Your task to perform on an android device: change notification settings in the gmail app Image 0: 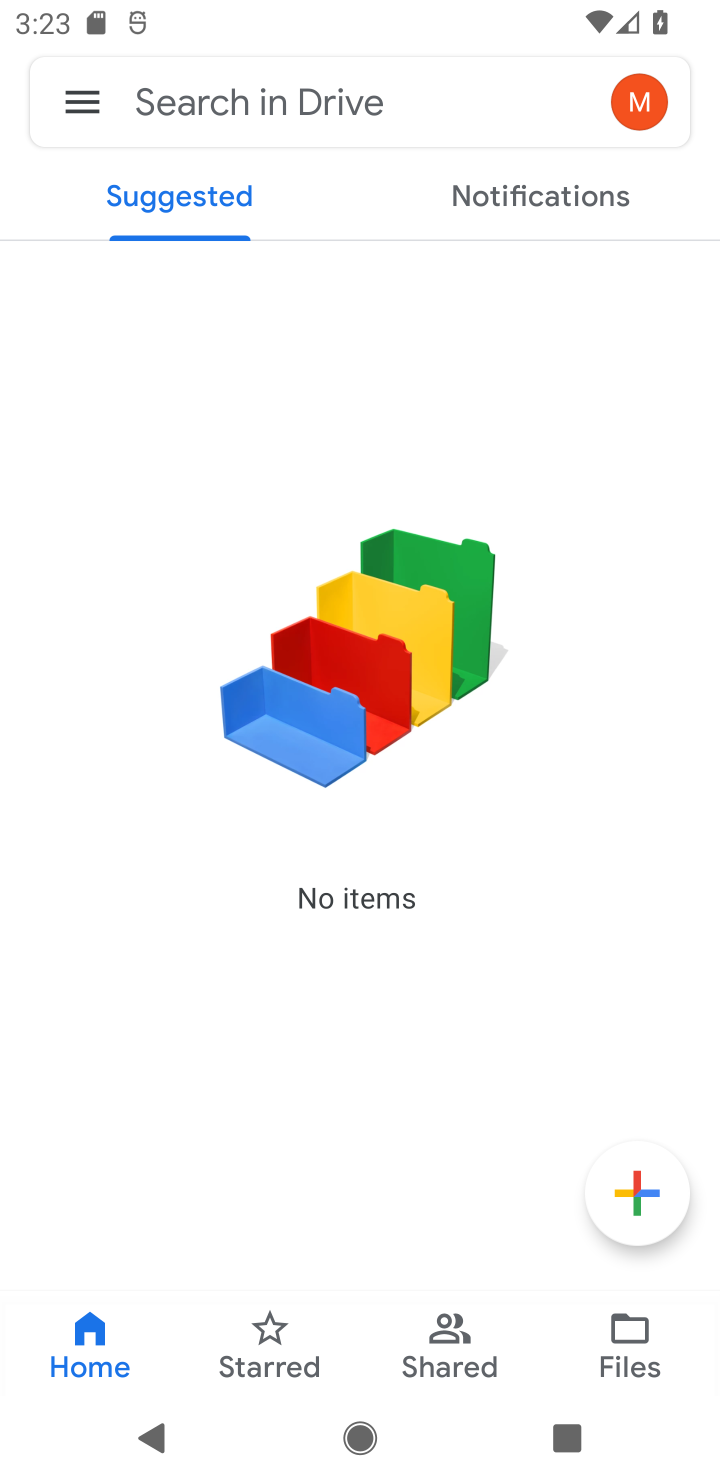
Step 0: press back button
Your task to perform on an android device: change notification settings in the gmail app Image 1: 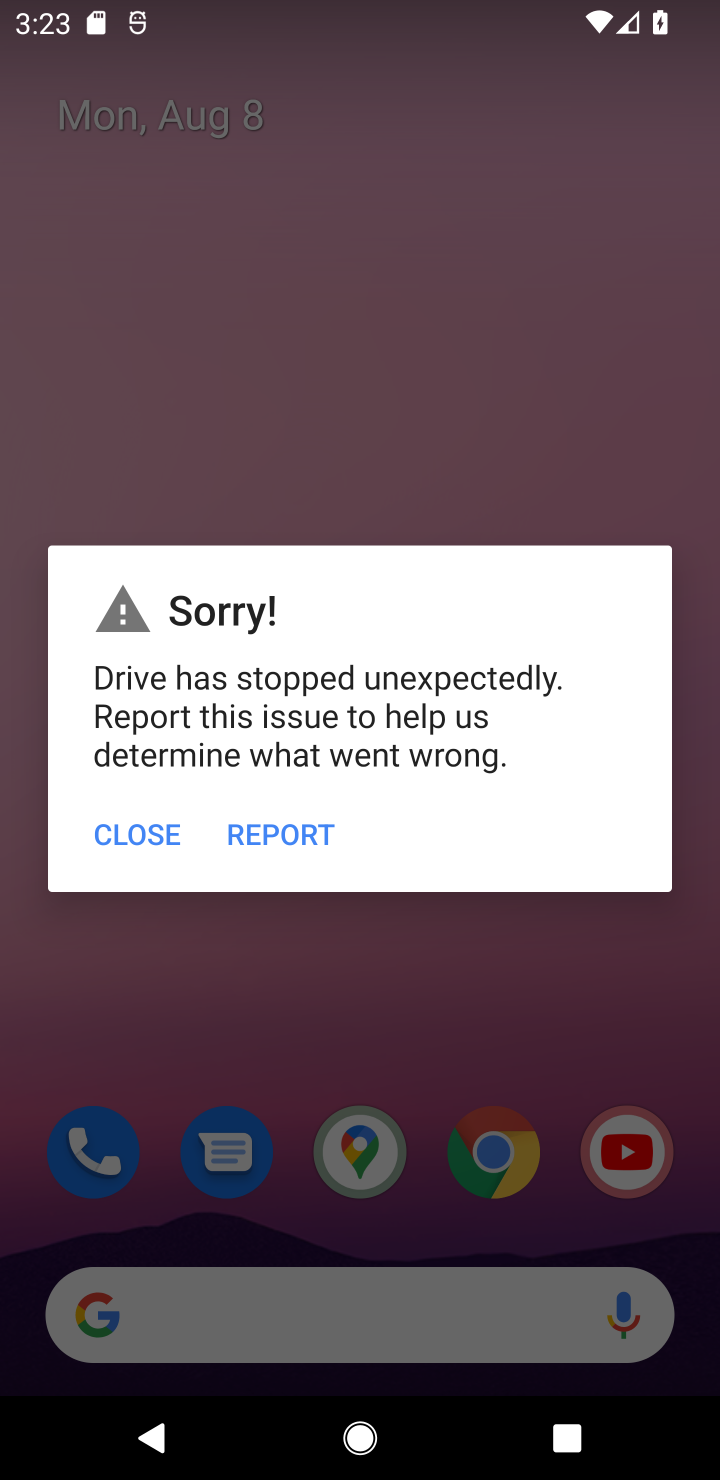
Step 1: click (151, 824)
Your task to perform on an android device: change notification settings in the gmail app Image 2: 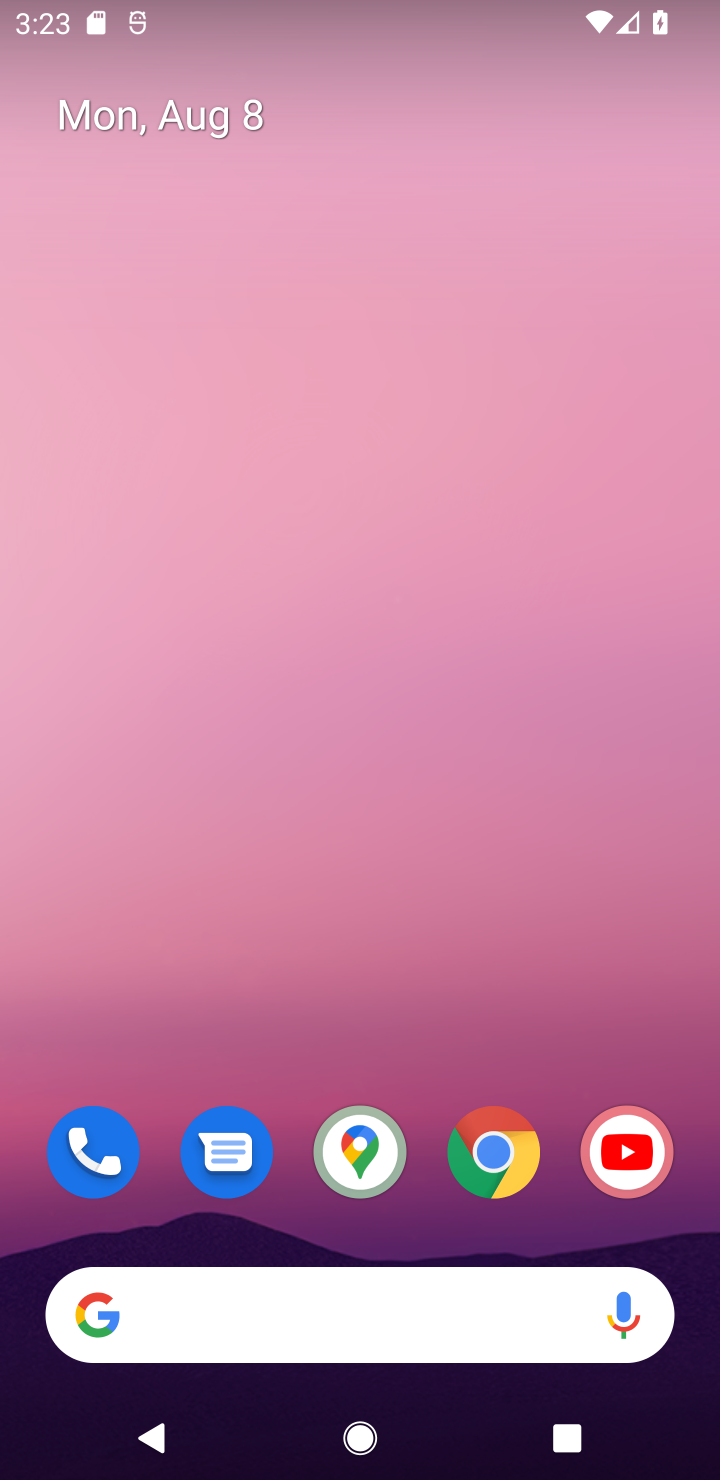
Step 2: drag from (385, 1268) to (592, 105)
Your task to perform on an android device: change notification settings in the gmail app Image 3: 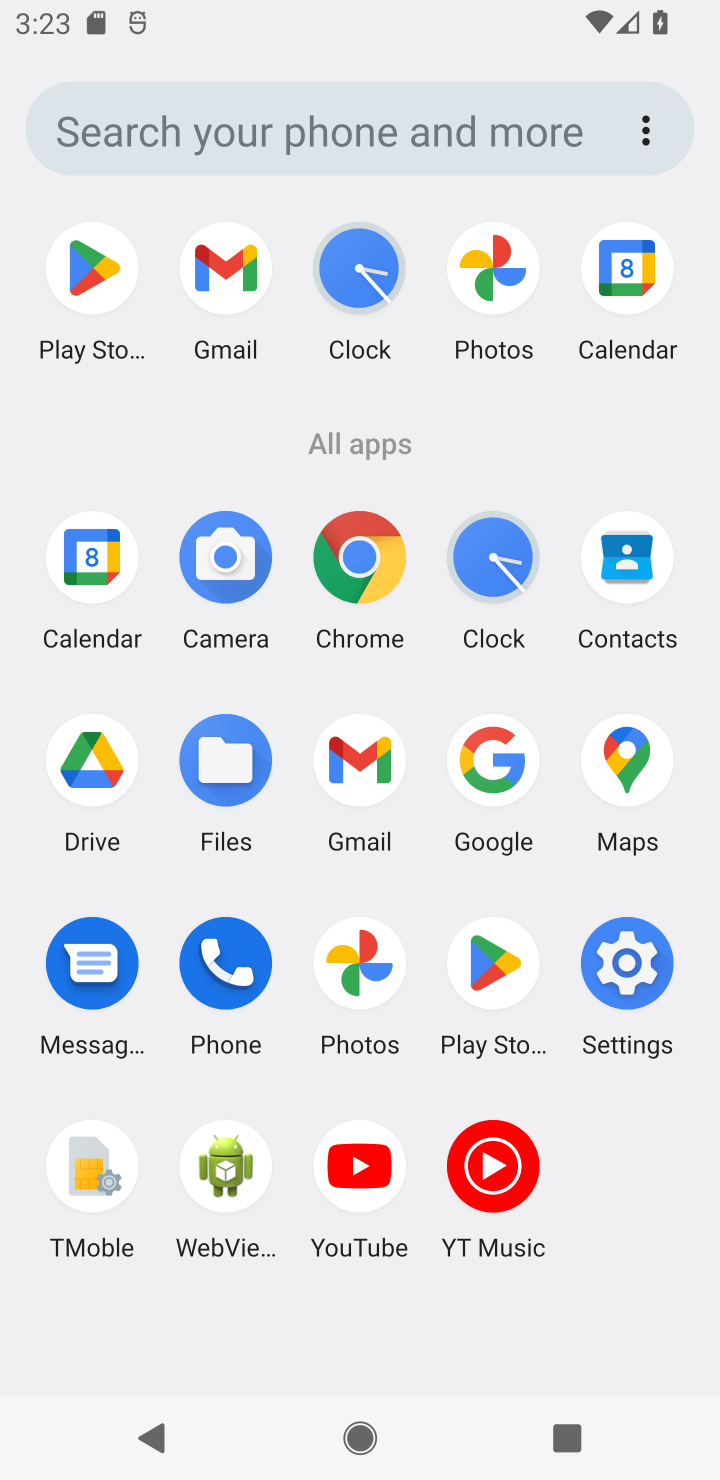
Step 3: click (228, 279)
Your task to perform on an android device: change notification settings in the gmail app Image 4: 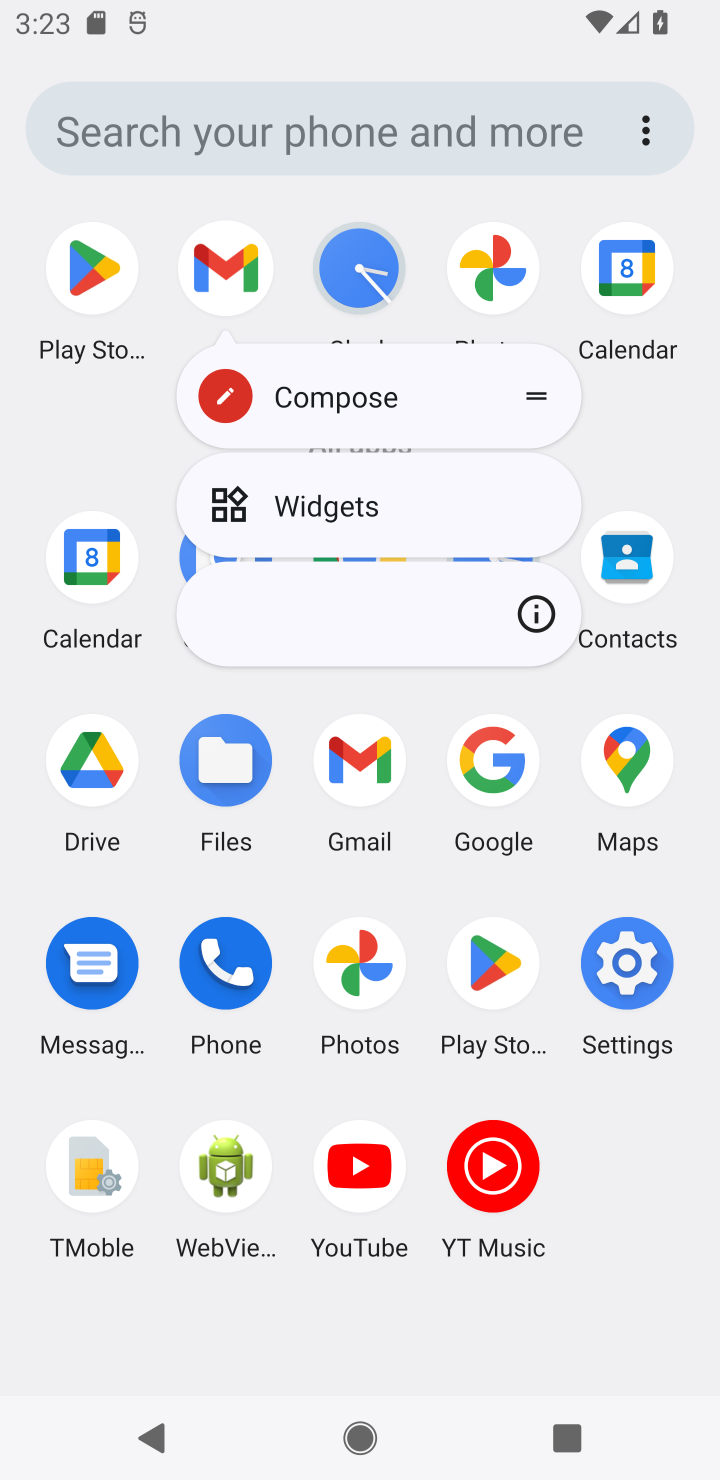
Step 4: click (560, 605)
Your task to perform on an android device: change notification settings in the gmail app Image 5: 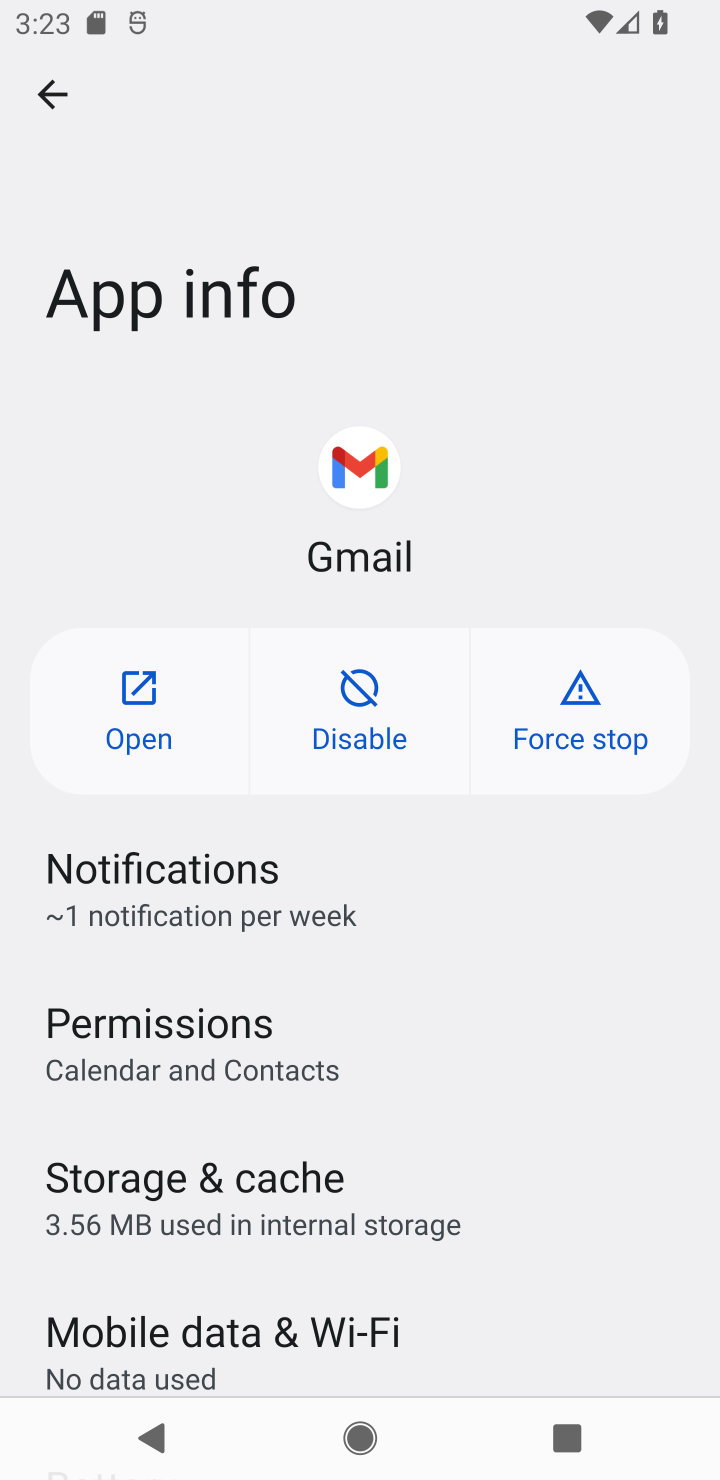
Step 5: click (311, 890)
Your task to perform on an android device: change notification settings in the gmail app Image 6: 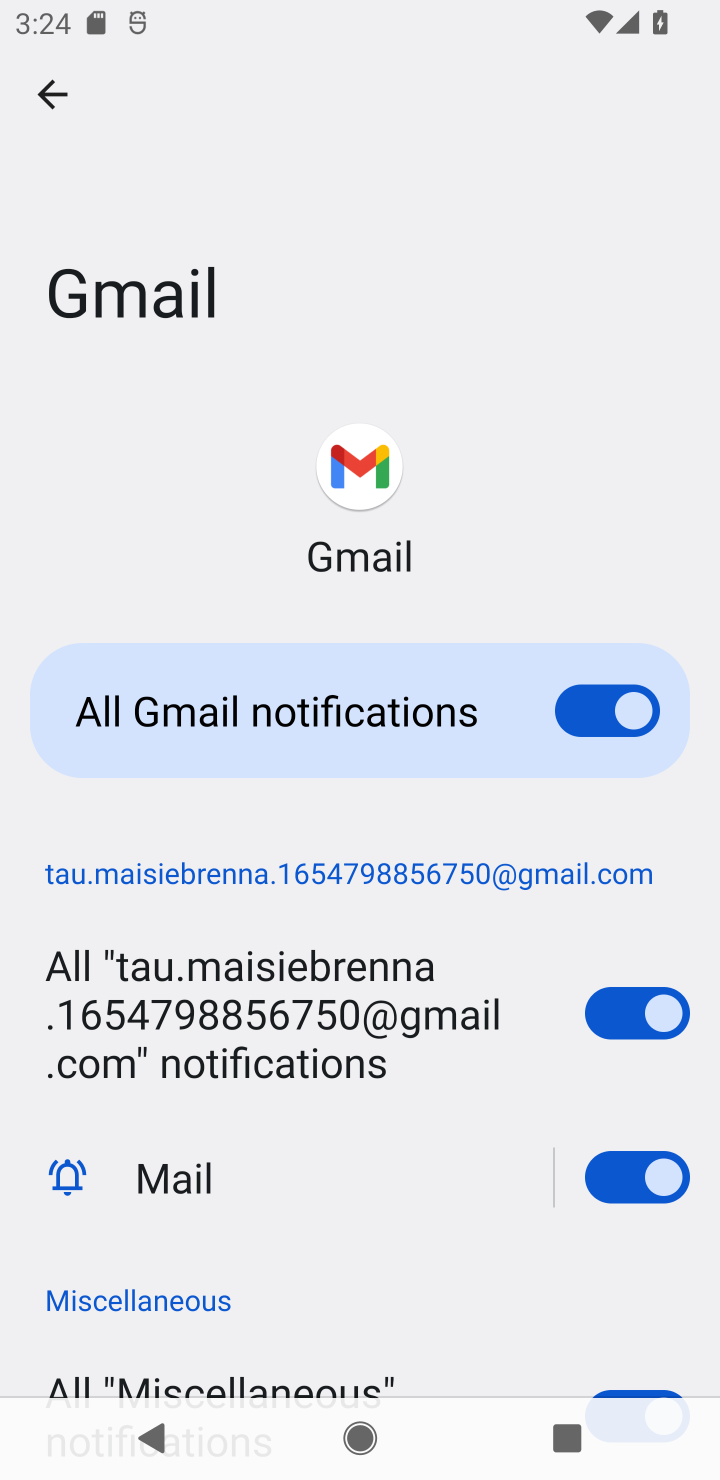
Step 6: click (653, 1186)
Your task to perform on an android device: change notification settings in the gmail app Image 7: 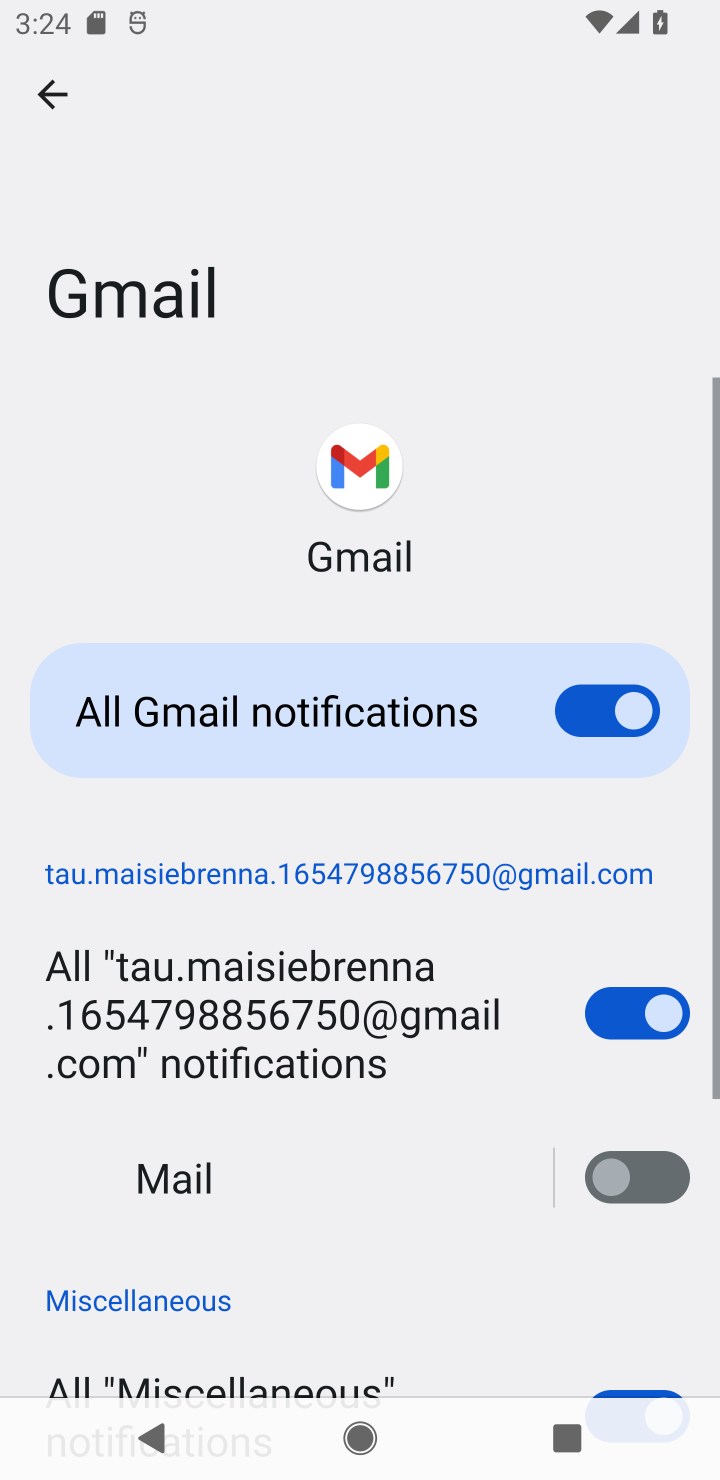
Step 7: task complete